Your task to perform on an android device: Open CNN.com Image 0: 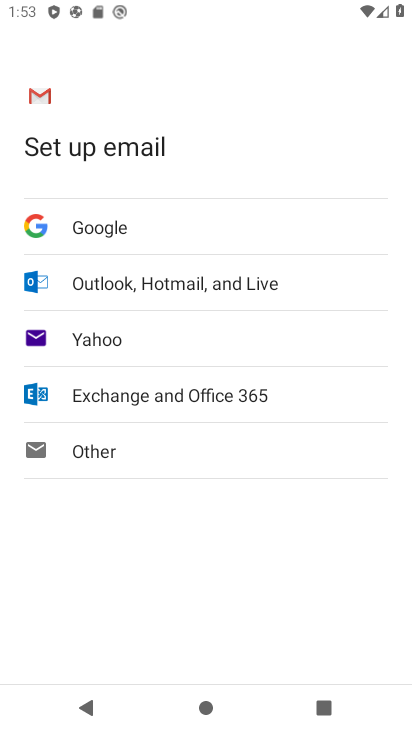
Step 0: press home button
Your task to perform on an android device: Open CNN.com Image 1: 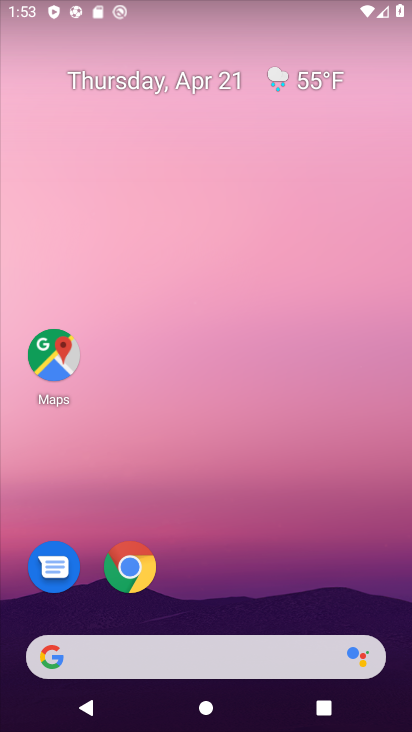
Step 1: drag from (160, 661) to (320, 100)
Your task to perform on an android device: Open CNN.com Image 2: 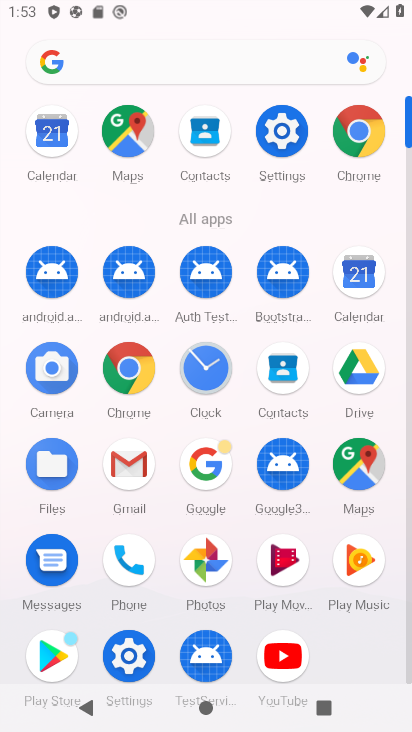
Step 2: click (365, 143)
Your task to perform on an android device: Open CNN.com Image 3: 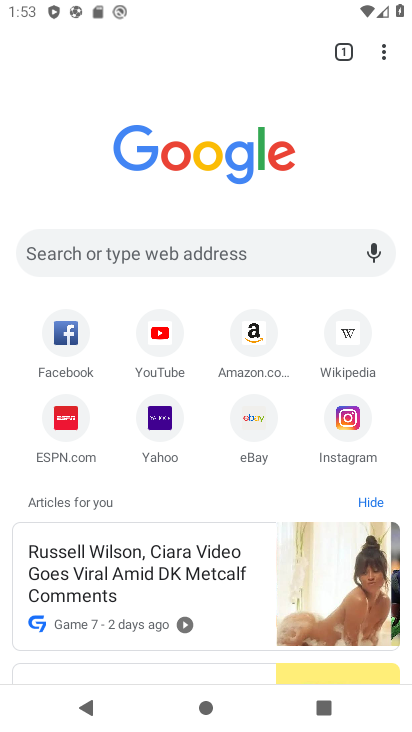
Step 3: click (184, 253)
Your task to perform on an android device: Open CNN.com Image 4: 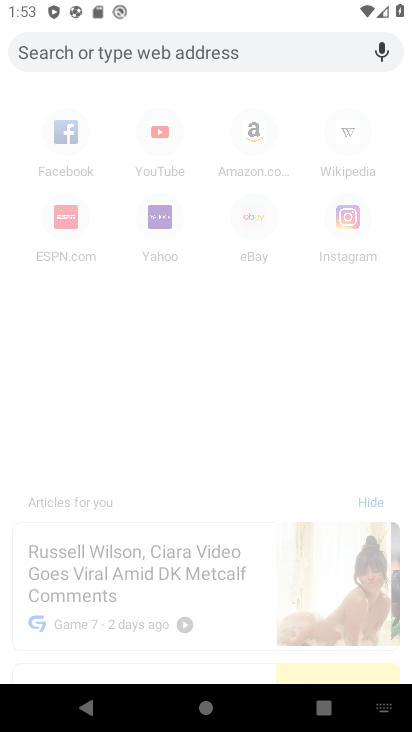
Step 4: type "cnn.com"
Your task to perform on an android device: Open CNN.com Image 5: 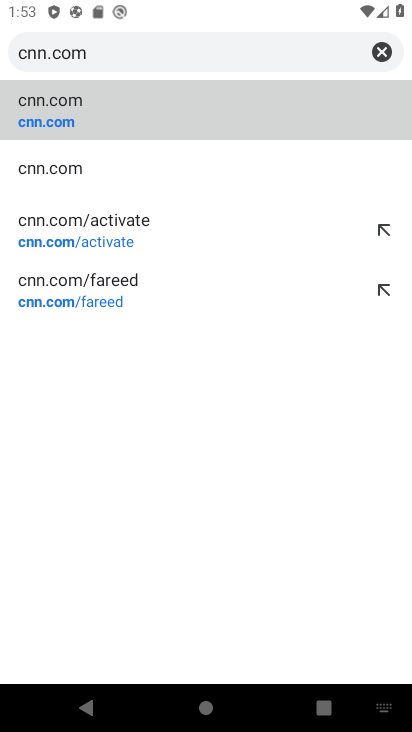
Step 5: click (70, 121)
Your task to perform on an android device: Open CNN.com Image 6: 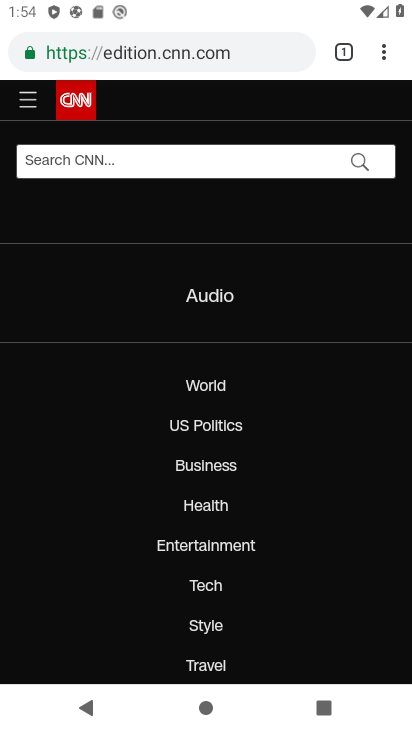
Step 6: task complete